Your task to perform on an android device: Go to Wikipedia Image 0: 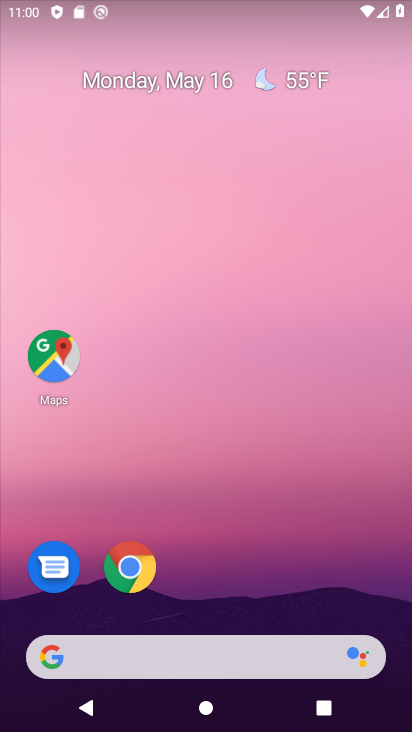
Step 0: click (132, 587)
Your task to perform on an android device: Go to Wikipedia Image 1: 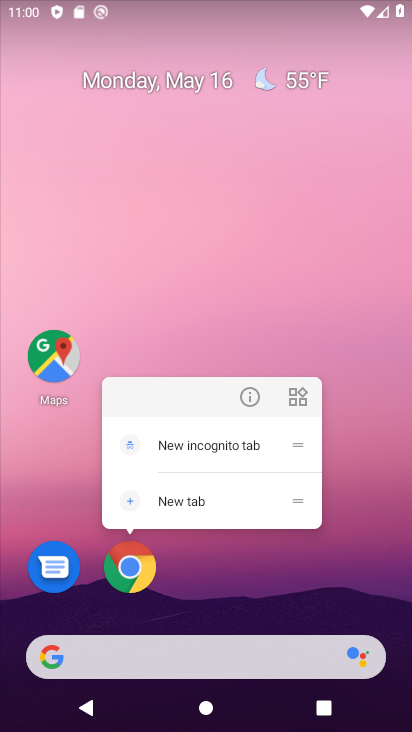
Step 1: click (131, 573)
Your task to perform on an android device: Go to Wikipedia Image 2: 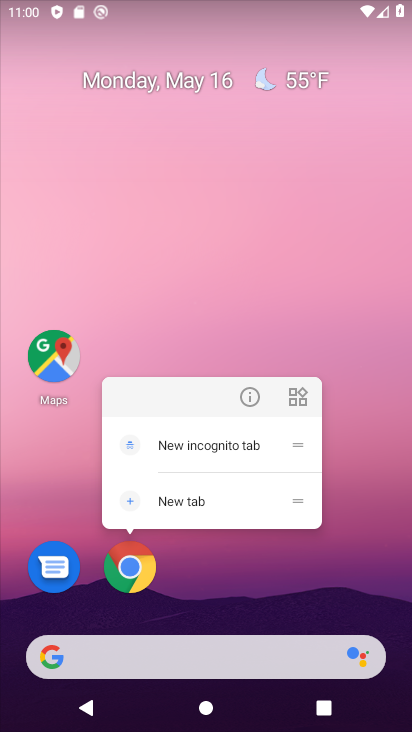
Step 2: click (126, 568)
Your task to perform on an android device: Go to Wikipedia Image 3: 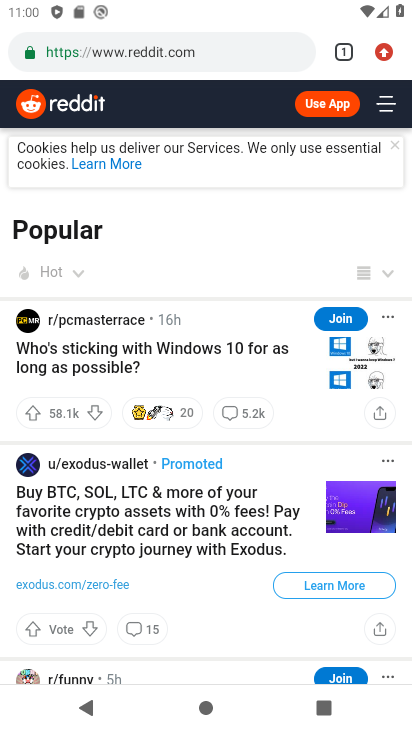
Step 3: drag from (384, 45) to (350, 142)
Your task to perform on an android device: Go to Wikipedia Image 4: 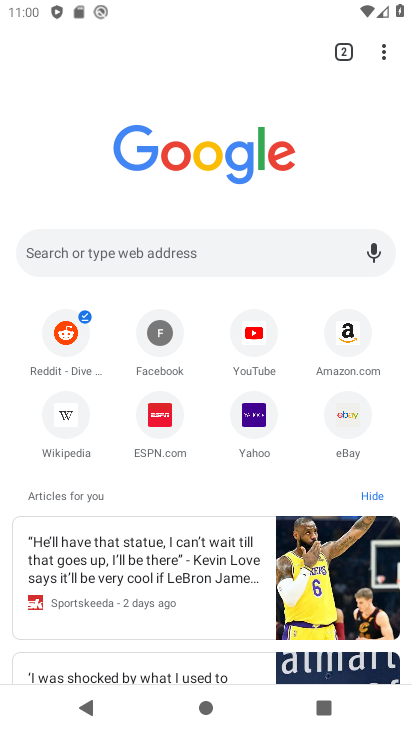
Step 4: click (73, 420)
Your task to perform on an android device: Go to Wikipedia Image 5: 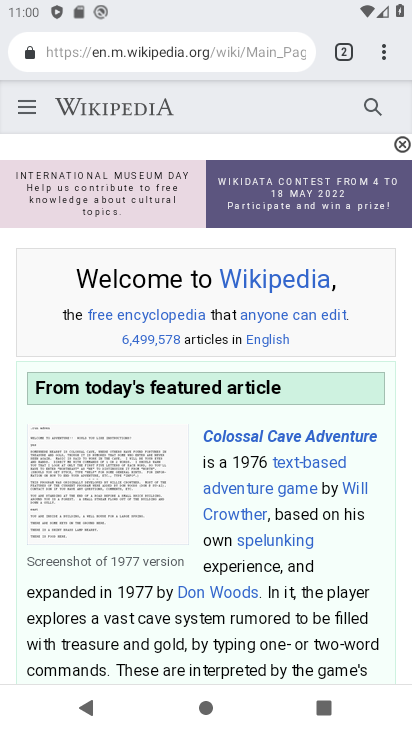
Step 5: task complete